Your task to perform on an android device: Open internet settings Image 0: 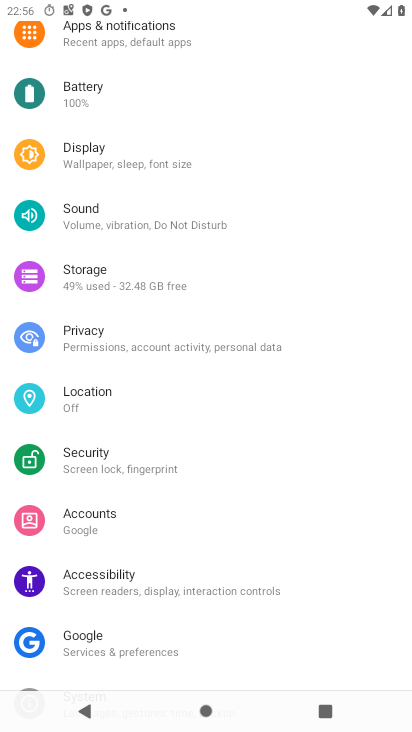
Step 0: press home button
Your task to perform on an android device: Open internet settings Image 1: 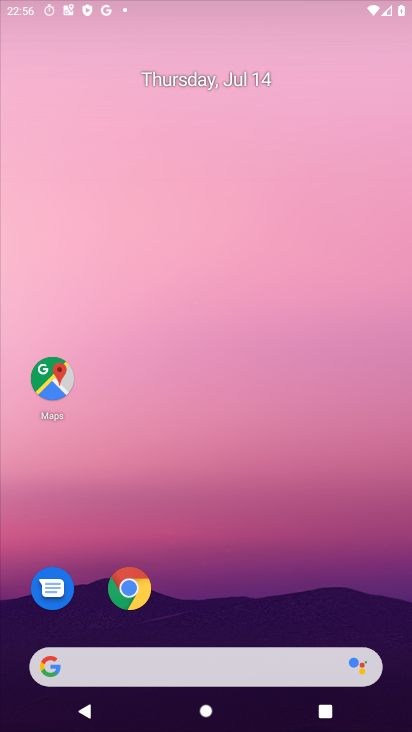
Step 1: drag from (223, 594) to (245, 83)
Your task to perform on an android device: Open internet settings Image 2: 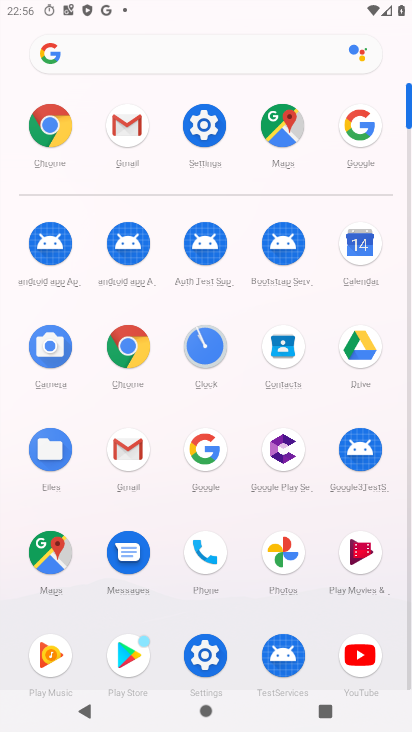
Step 2: click (211, 125)
Your task to perform on an android device: Open internet settings Image 3: 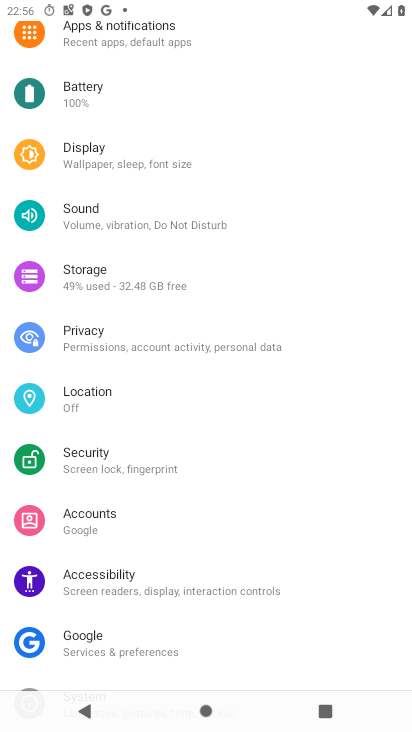
Step 3: drag from (174, 123) to (177, 412)
Your task to perform on an android device: Open internet settings Image 4: 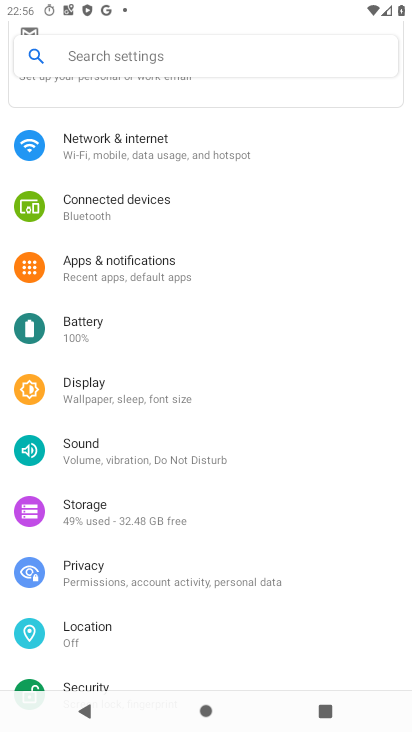
Step 4: click (140, 142)
Your task to perform on an android device: Open internet settings Image 5: 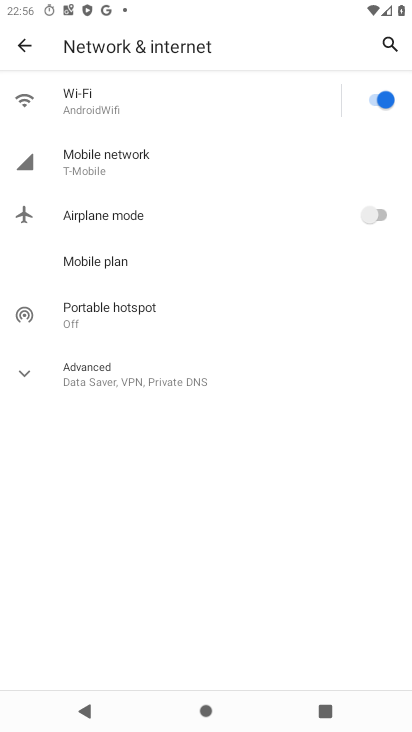
Step 5: click (119, 91)
Your task to perform on an android device: Open internet settings Image 6: 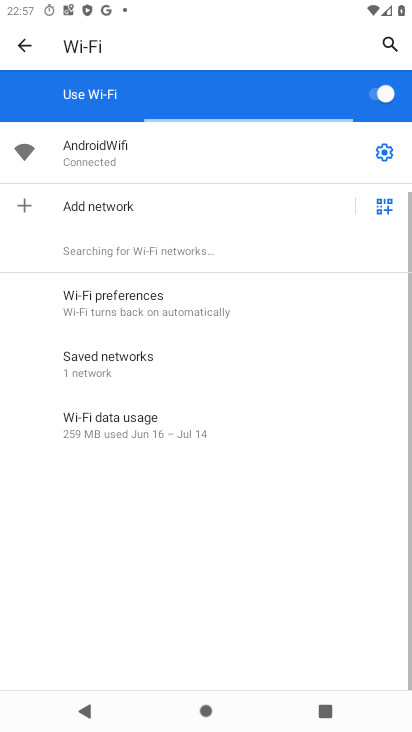
Step 6: click (164, 150)
Your task to perform on an android device: Open internet settings Image 7: 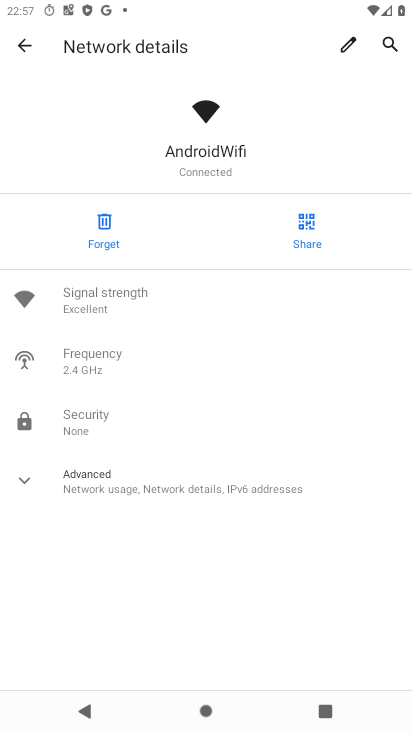
Step 7: task complete